Your task to perform on an android device: turn off notifications in google photos Image 0: 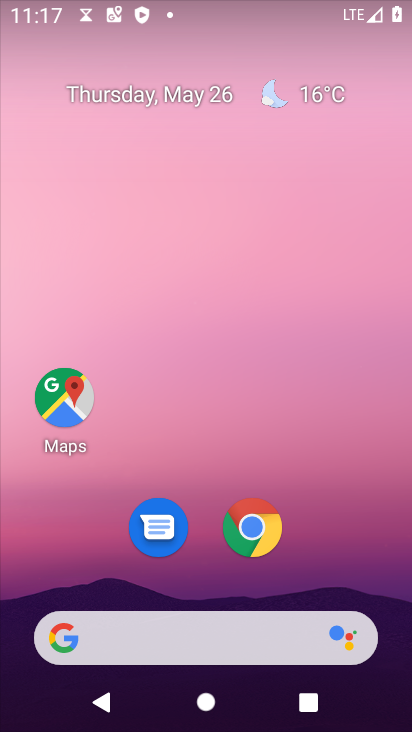
Step 0: drag from (203, 594) to (203, 65)
Your task to perform on an android device: turn off notifications in google photos Image 1: 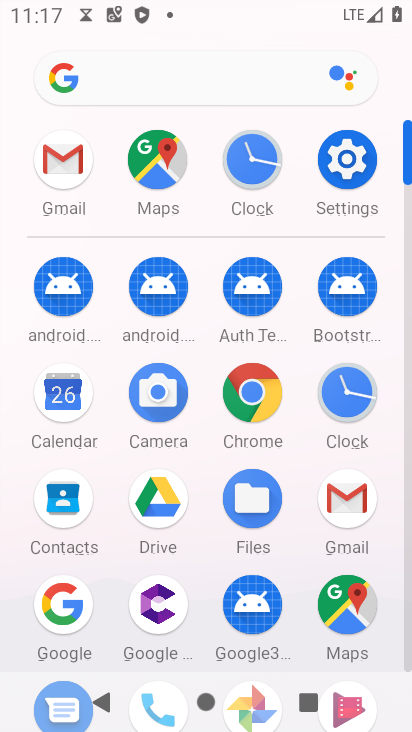
Step 1: drag from (286, 579) to (251, 208)
Your task to perform on an android device: turn off notifications in google photos Image 2: 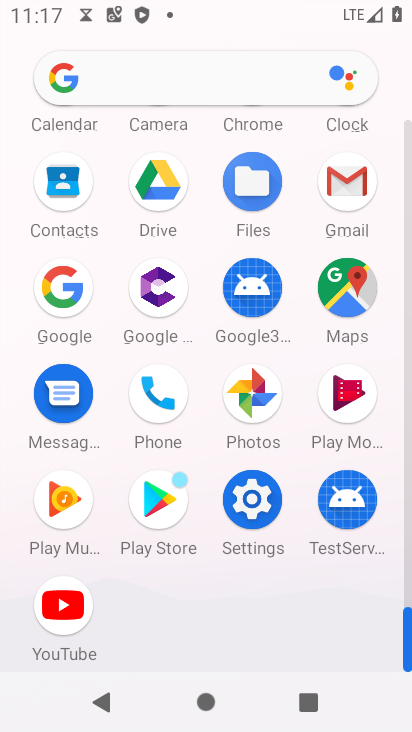
Step 2: click (247, 399)
Your task to perform on an android device: turn off notifications in google photos Image 3: 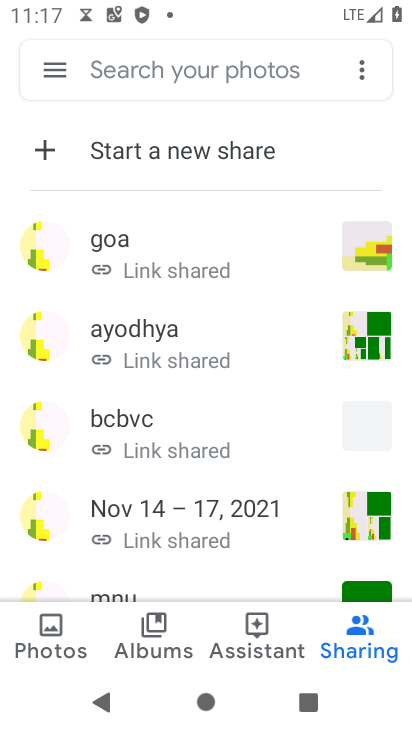
Step 3: click (50, 57)
Your task to perform on an android device: turn off notifications in google photos Image 4: 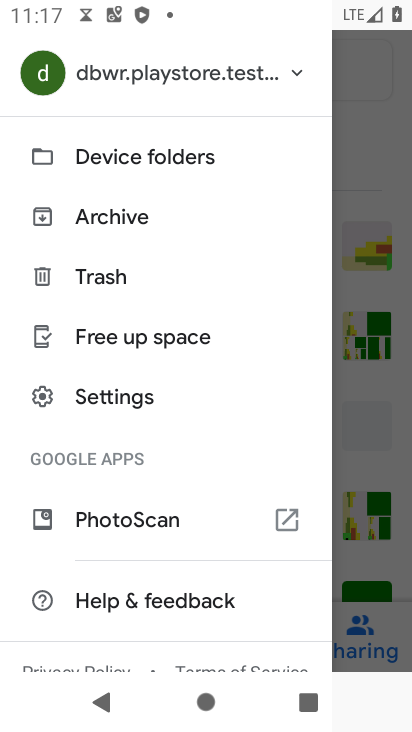
Step 4: click (137, 403)
Your task to perform on an android device: turn off notifications in google photos Image 5: 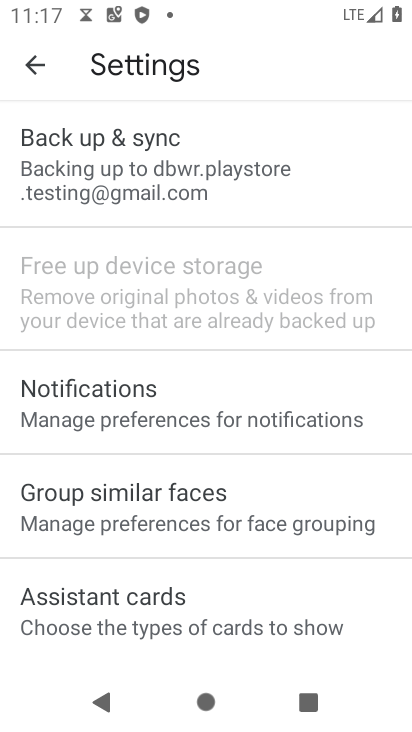
Step 5: click (134, 393)
Your task to perform on an android device: turn off notifications in google photos Image 6: 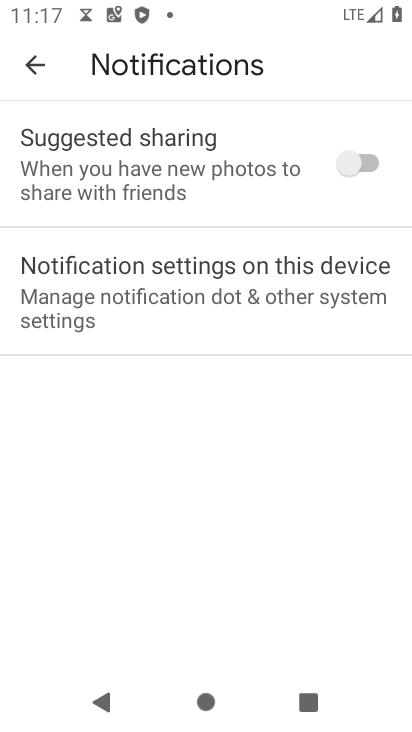
Step 6: click (339, 279)
Your task to perform on an android device: turn off notifications in google photos Image 7: 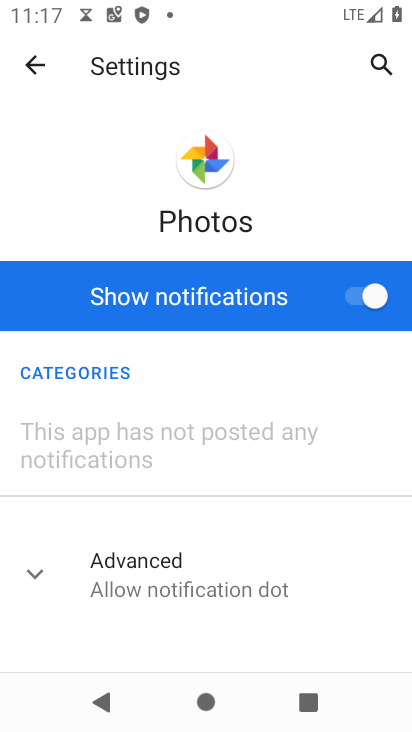
Step 7: click (348, 295)
Your task to perform on an android device: turn off notifications in google photos Image 8: 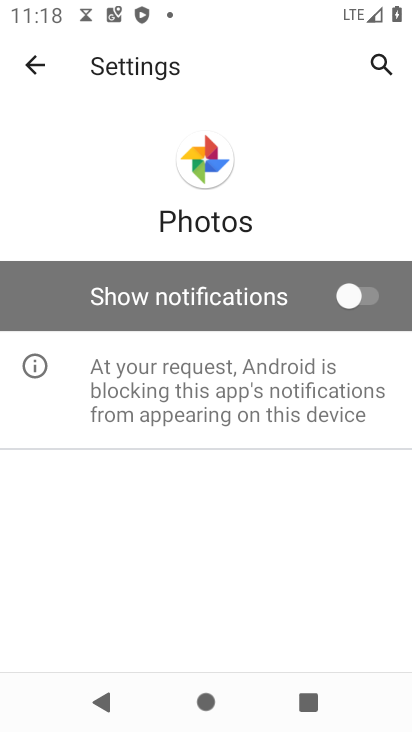
Step 8: task complete